Your task to perform on an android device: toggle improve location accuracy Image 0: 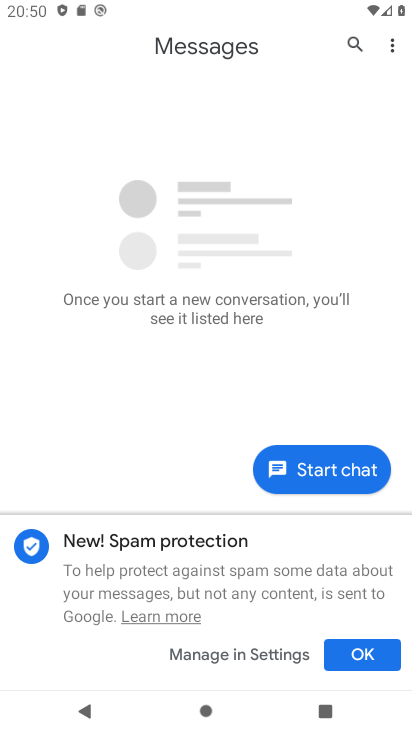
Step 0: press home button
Your task to perform on an android device: toggle improve location accuracy Image 1: 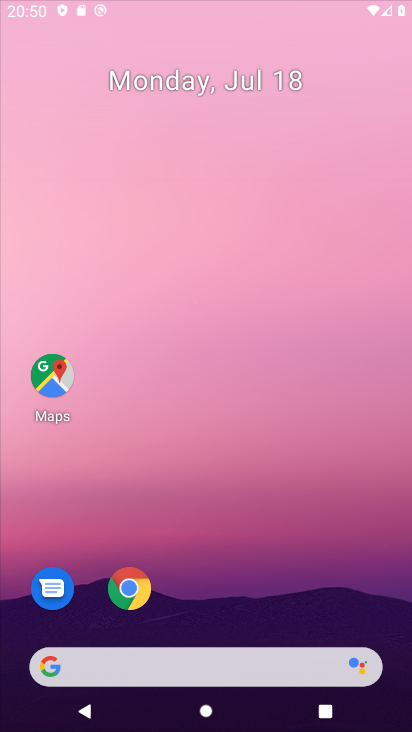
Step 1: drag from (257, 614) to (173, 9)
Your task to perform on an android device: toggle improve location accuracy Image 2: 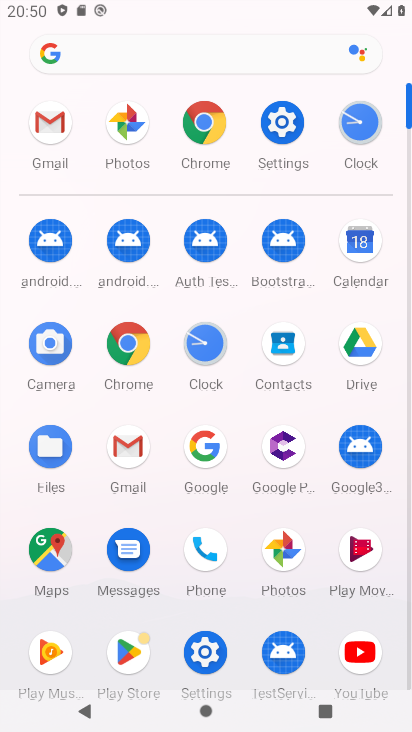
Step 2: click (277, 132)
Your task to perform on an android device: toggle improve location accuracy Image 3: 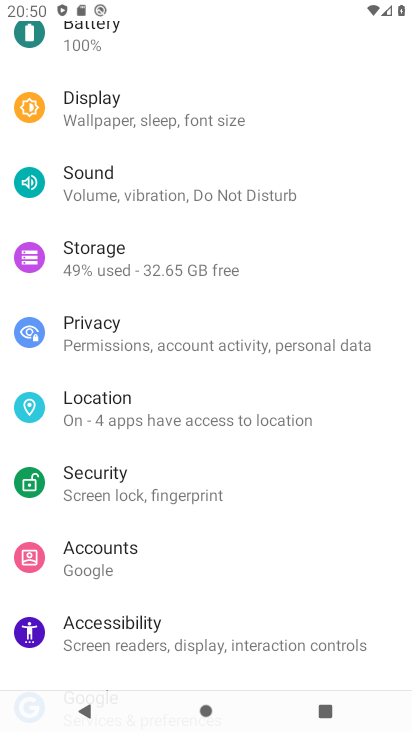
Step 3: click (140, 401)
Your task to perform on an android device: toggle improve location accuracy Image 4: 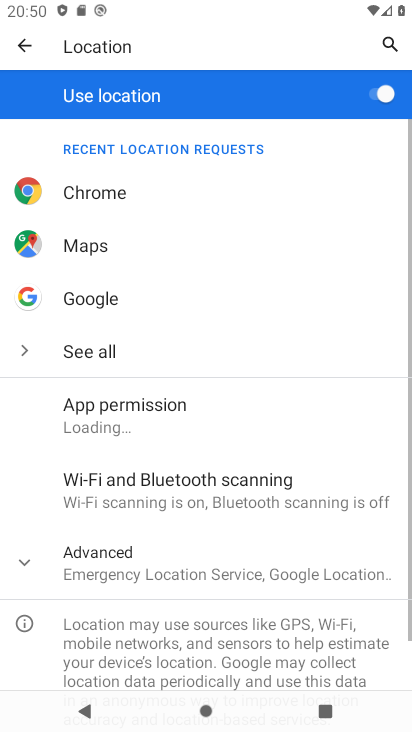
Step 4: click (163, 555)
Your task to perform on an android device: toggle improve location accuracy Image 5: 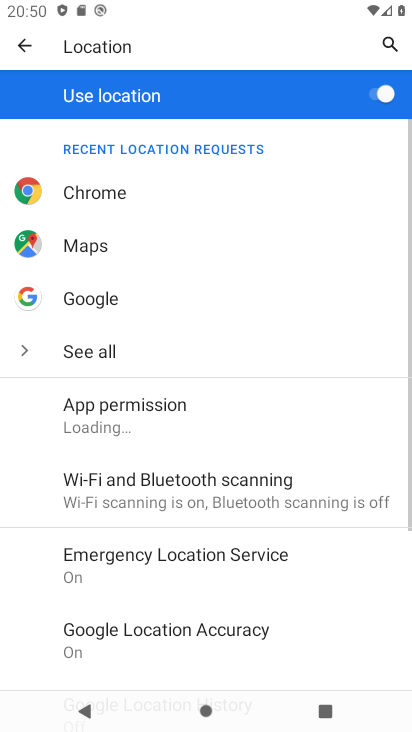
Step 5: click (163, 633)
Your task to perform on an android device: toggle improve location accuracy Image 6: 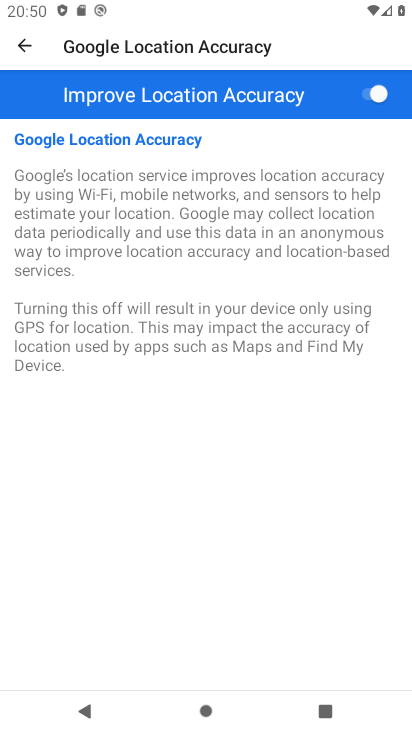
Step 6: click (238, 98)
Your task to perform on an android device: toggle improve location accuracy Image 7: 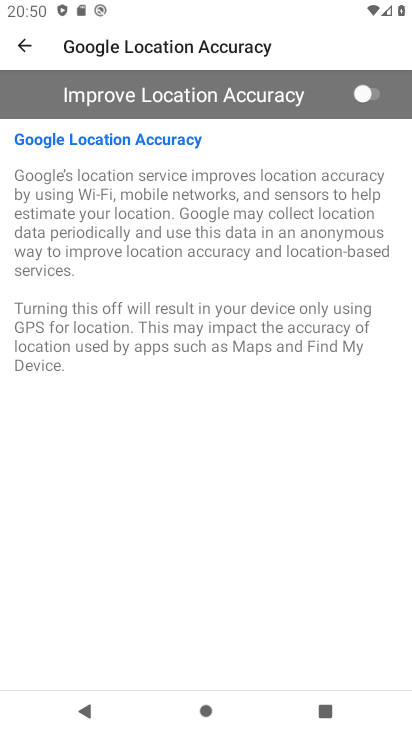
Step 7: task complete